Your task to perform on an android device: set default search engine in the chrome app Image 0: 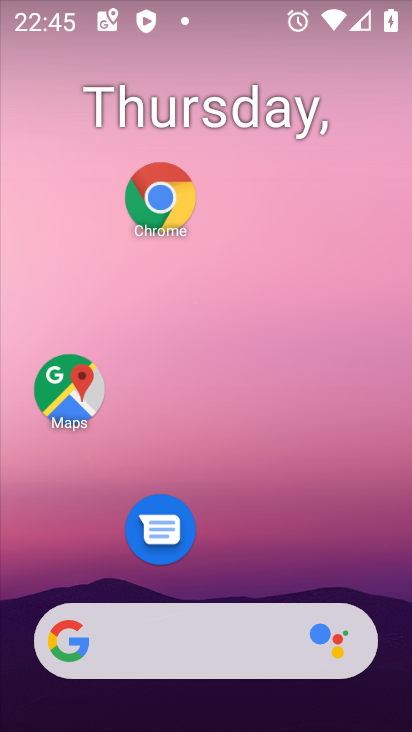
Step 0: click (160, 187)
Your task to perform on an android device: set default search engine in the chrome app Image 1: 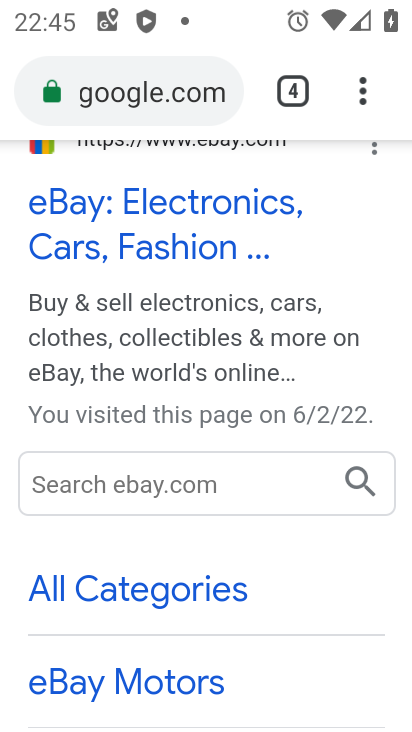
Step 1: click (364, 89)
Your task to perform on an android device: set default search engine in the chrome app Image 2: 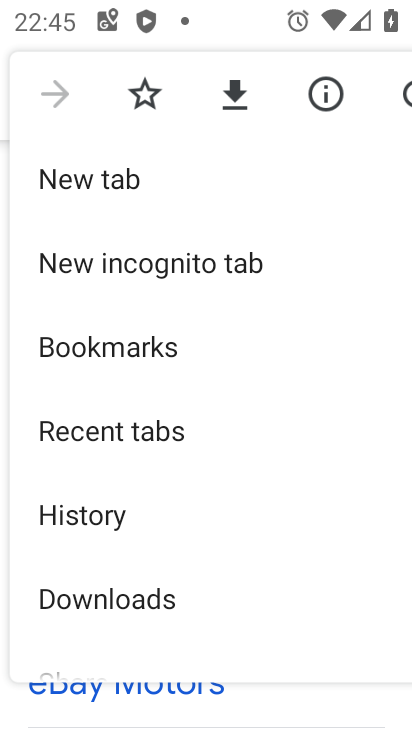
Step 2: drag from (196, 518) to (189, 240)
Your task to perform on an android device: set default search engine in the chrome app Image 3: 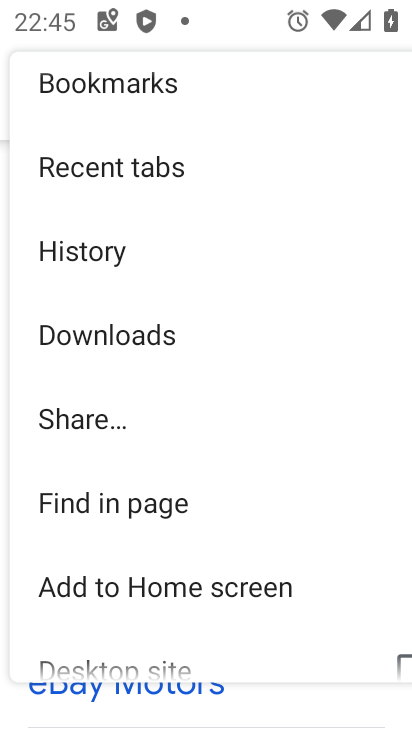
Step 3: drag from (221, 465) to (204, 125)
Your task to perform on an android device: set default search engine in the chrome app Image 4: 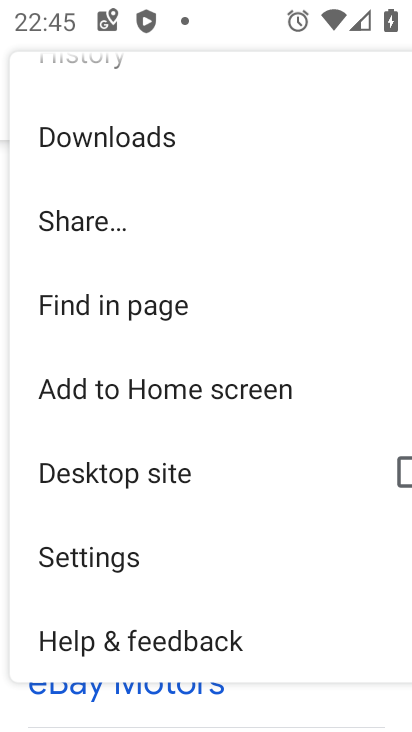
Step 4: click (80, 558)
Your task to perform on an android device: set default search engine in the chrome app Image 5: 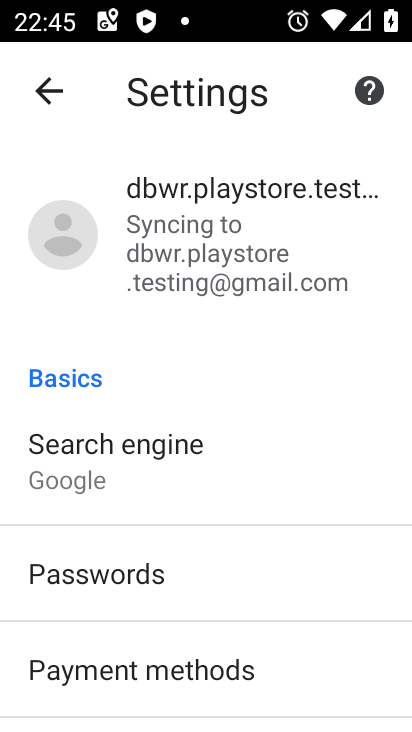
Step 5: click (76, 462)
Your task to perform on an android device: set default search engine in the chrome app Image 6: 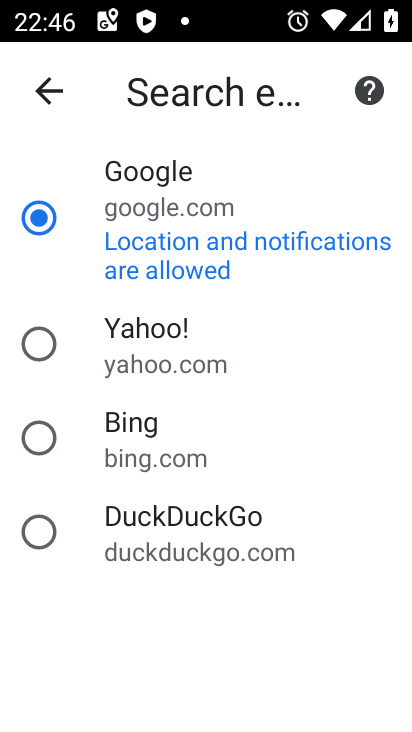
Step 6: task complete